Your task to perform on an android device: Go to Yahoo.com Image 0: 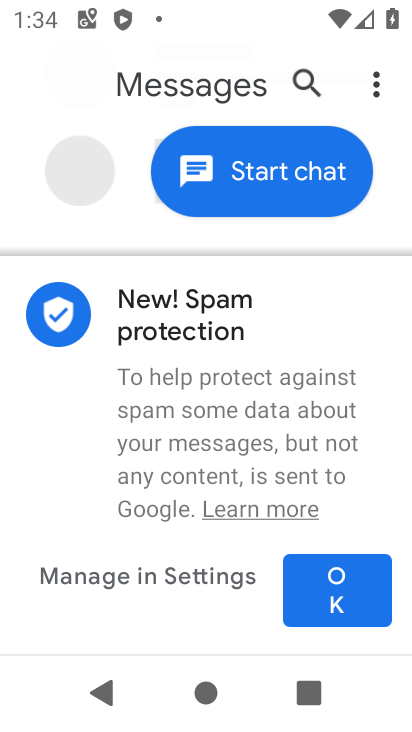
Step 0: press home button
Your task to perform on an android device: Go to Yahoo.com Image 1: 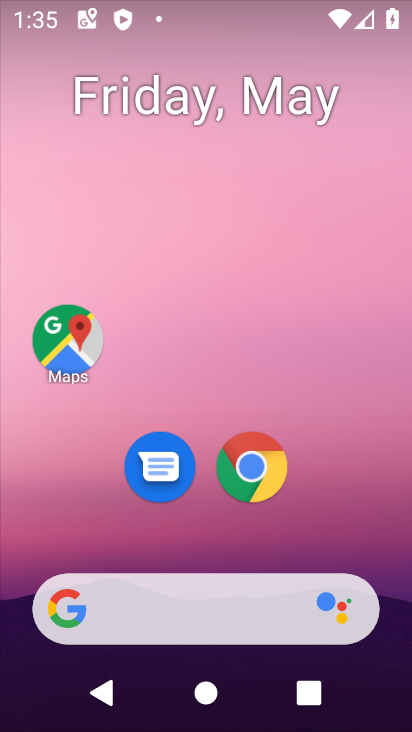
Step 1: click (217, 608)
Your task to perform on an android device: Go to Yahoo.com Image 2: 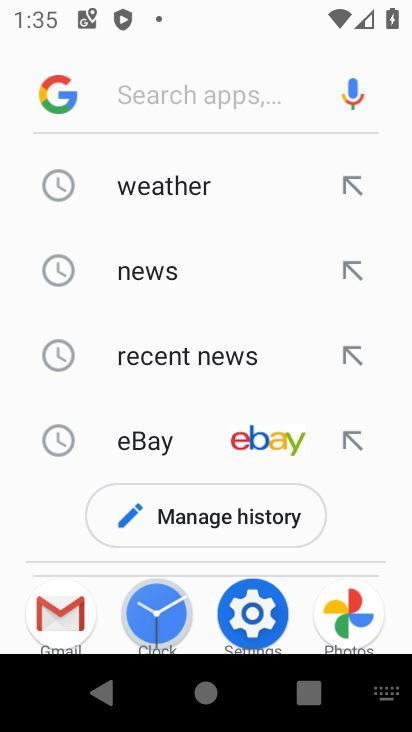
Step 2: type "Yahoo.com"
Your task to perform on an android device: Go to Yahoo.com Image 3: 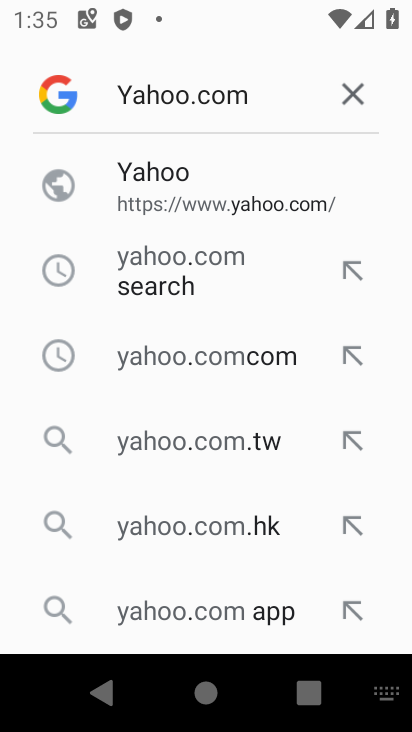
Step 3: click (209, 201)
Your task to perform on an android device: Go to Yahoo.com Image 4: 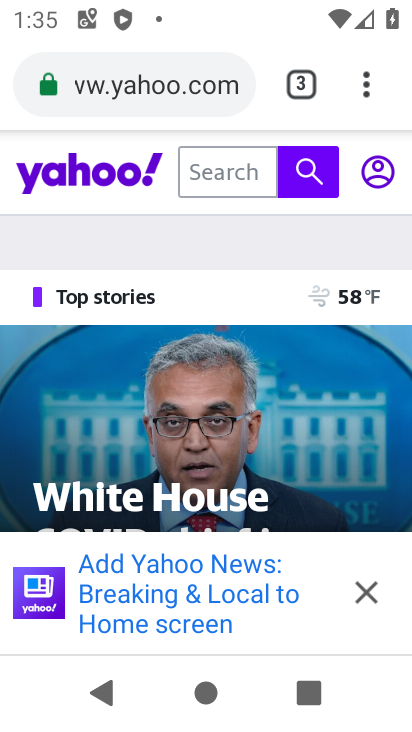
Step 4: task complete